Your task to perform on an android device: Go to privacy settings Image 0: 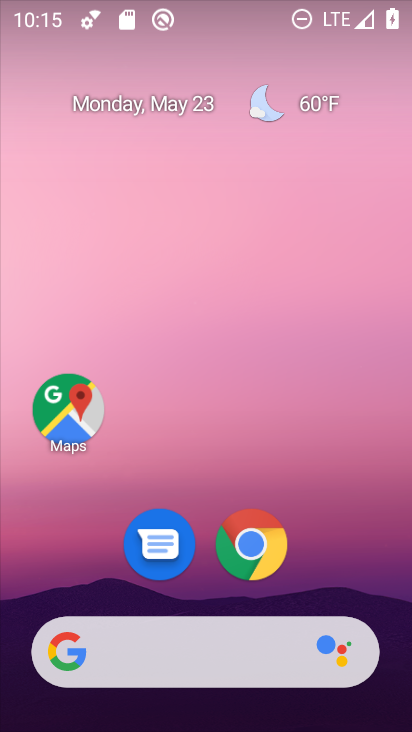
Step 0: drag from (303, 555) to (161, 239)
Your task to perform on an android device: Go to privacy settings Image 1: 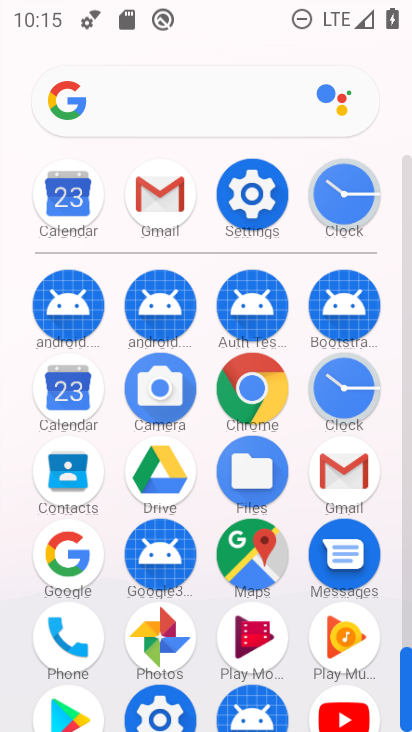
Step 1: click (261, 185)
Your task to perform on an android device: Go to privacy settings Image 2: 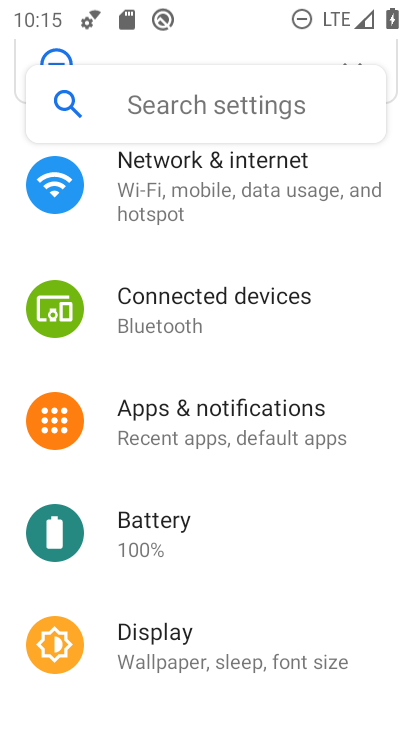
Step 2: drag from (233, 632) to (203, 239)
Your task to perform on an android device: Go to privacy settings Image 3: 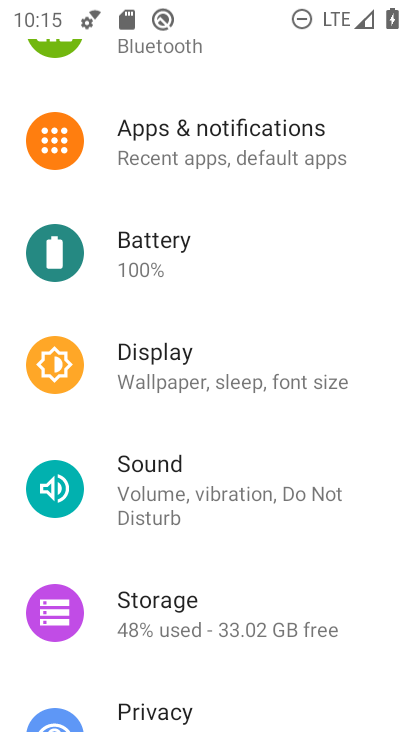
Step 3: click (144, 707)
Your task to perform on an android device: Go to privacy settings Image 4: 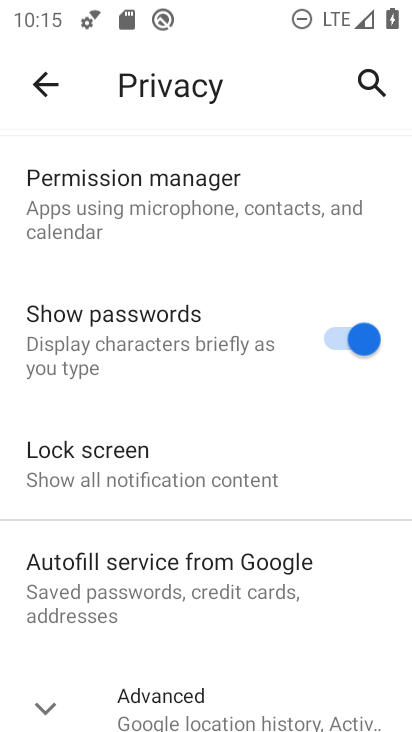
Step 4: click (144, 707)
Your task to perform on an android device: Go to privacy settings Image 5: 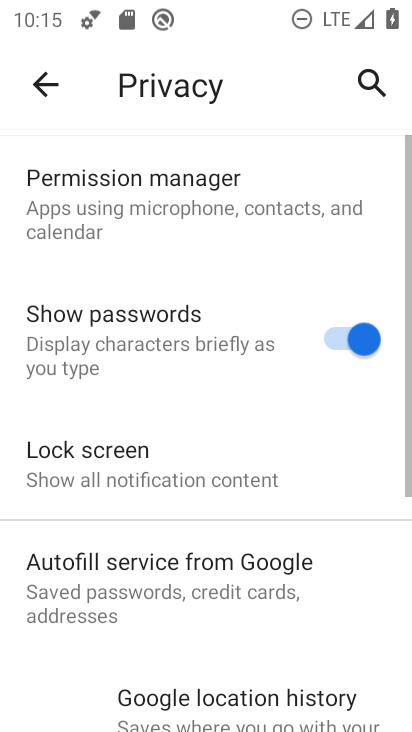
Step 5: task complete